Your task to perform on an android device: Open Google Maps Image 0: 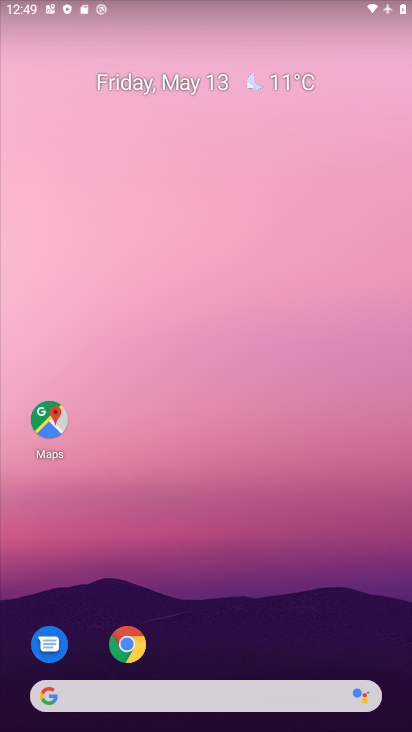
Step 0: drag from (206, 712) to (188, 26)
Your task to perform on an android device: Open Google Maps Image 1: 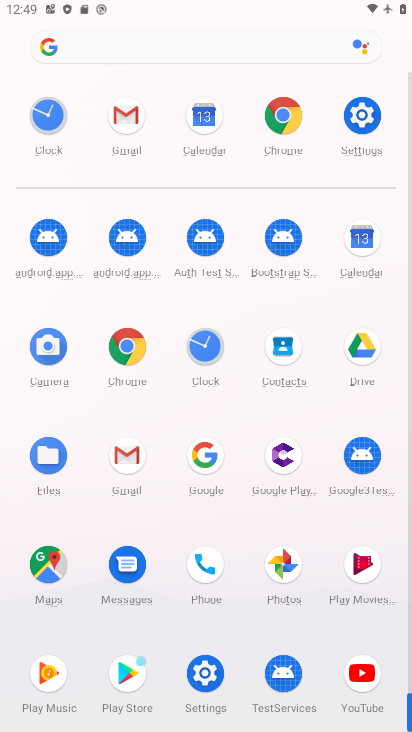
Step 1: click (49, 573)
Your task to perform on an android device: Open Google Maps Image 2: 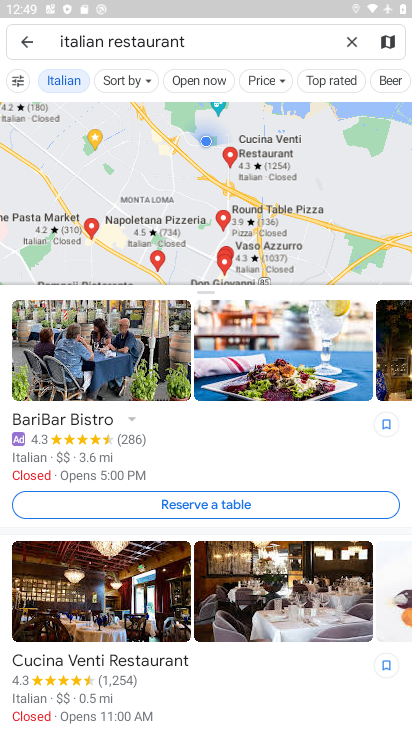
Step 2: task complete